Your task to perform on an android device: Show me popular games on the Play Store Image 0: 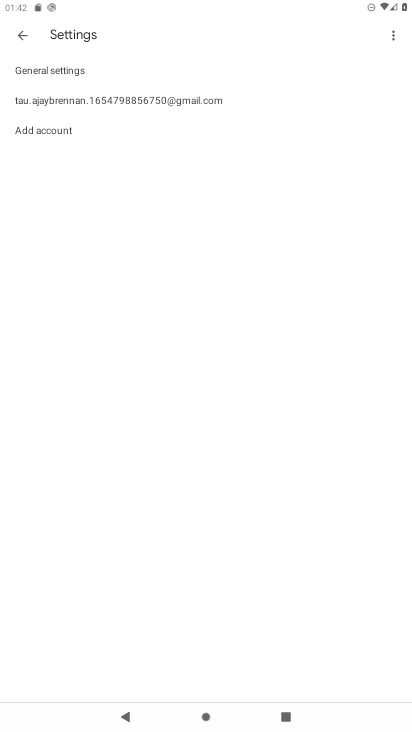
Step 0: press home button
Your task to perform on an android device: Show me popular games on the Play Store Image 1: 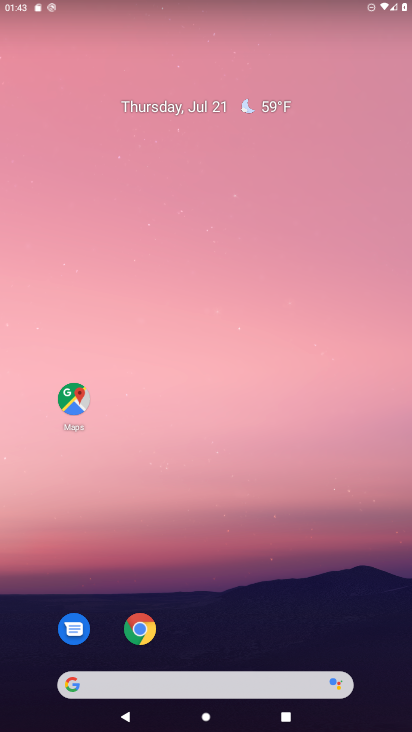
Step 1: drag from (372, 663) to (343, 91)
Your task to perform on an android device: Show me popular games on the Play Store Image 2: 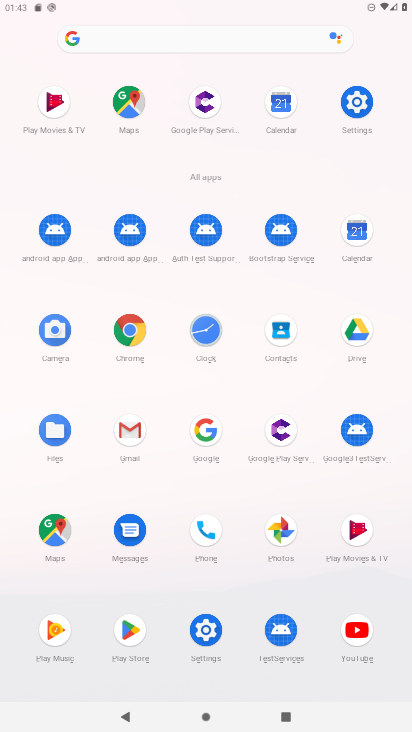
Step 2: click (134, 630)
Your task to perform on an android device: Show me popular games on the Play Store Image 3: 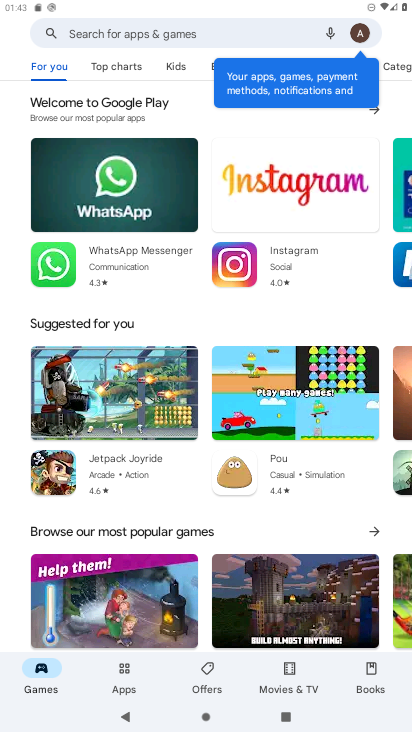
Step 3: click (375, 533)
Your task to perform on an android device: Show me popular games on the Play Store Image 4: 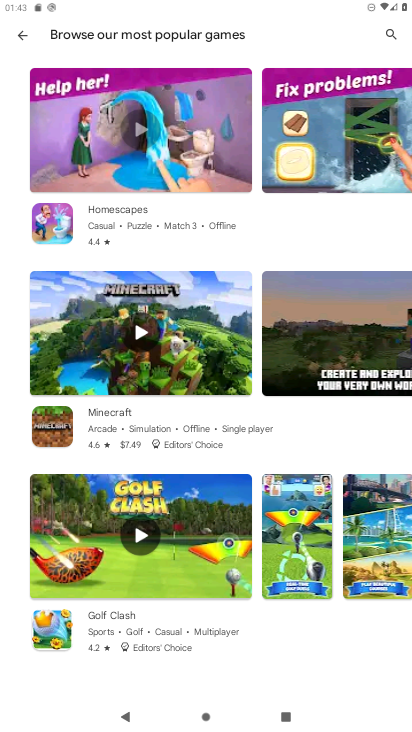
Step 4: task complete